Your task to perform on an android device: Open Amazon Image 0: 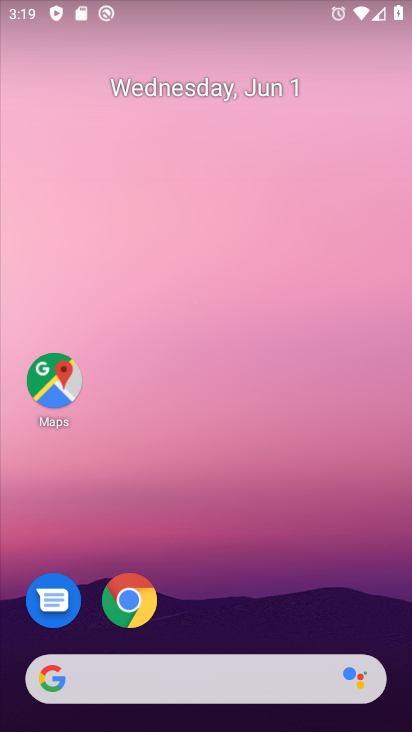
Step 0: drag from (215, 577) to (233, 224)
Your task to perform on an android device: Open Amazon Image 1: 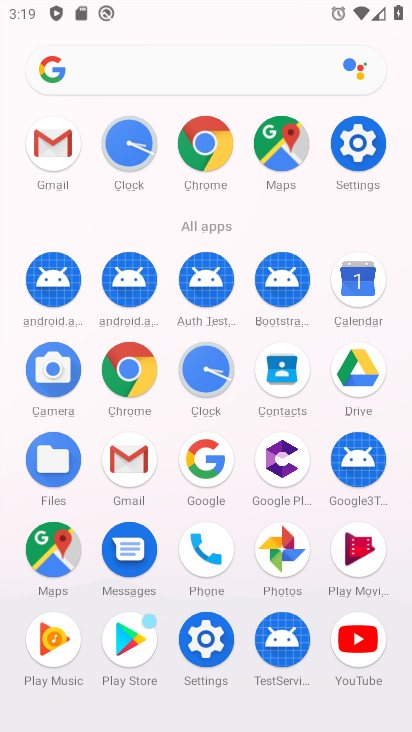
Step 1: click (199, 137)
Your task to perform on an android device: Open Amazon Image 2: 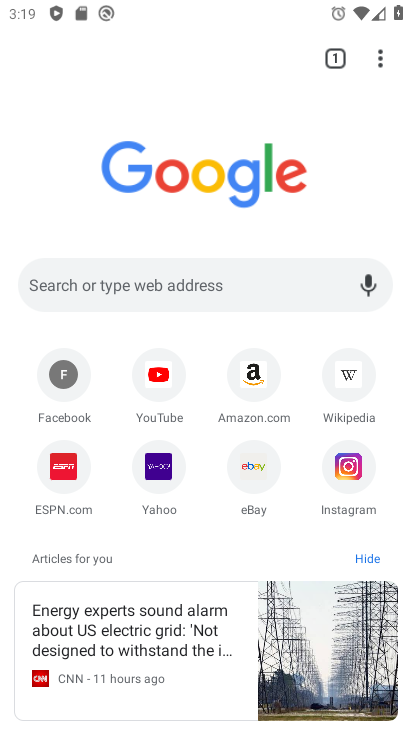
Step 2: click (253, 392)
Your task to perform on an android device: Open Amazon Image 3: 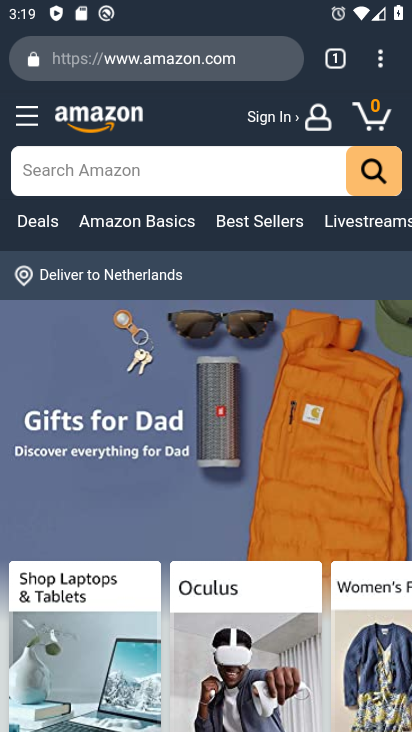
Step 3: task complete